Your task to perform on an android device: Open the calendar app, open the side menu, and click the "Day" option Image 0: 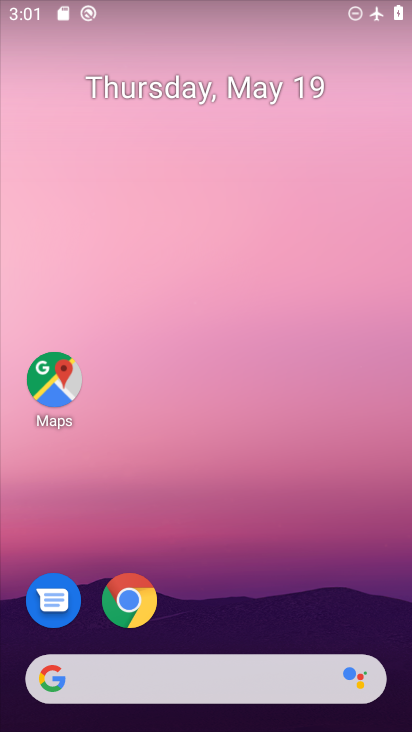
Step 0: drag from (392, 628) to (367, 493)
Your task to perform on an android device: Open the calendar app, open the side menu, and click the "Day" option Image 1: 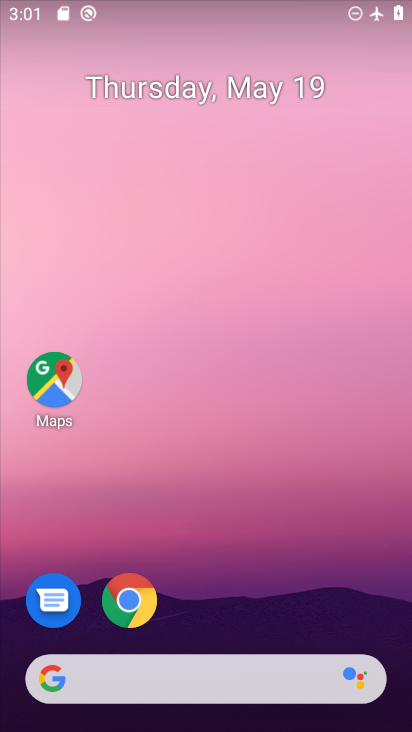
Step 1: drag from (405, 695) to (339, 401)
Your task to perform on an android device: Open the calendar app, open the side menu, and click the "Day" option Image 2: 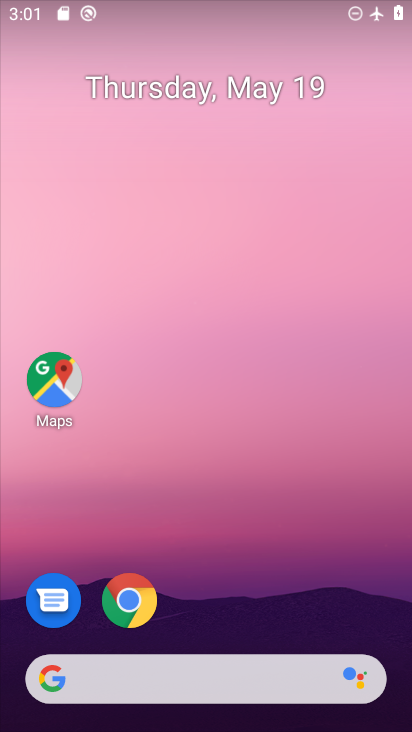
Step 2: drag from (396, 704) to (305, 376)
Your task to perform on an android device: Open the calendar app, open the side menu, and click the "Day" option Image 3: 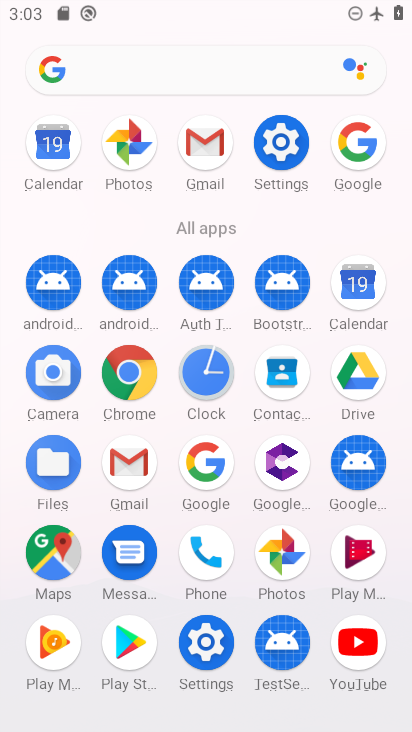
Step 3: click (45, 147)
Your task to perform on an android device: Open the calendar app, open the side menu, and click the "Day" option Image 4: 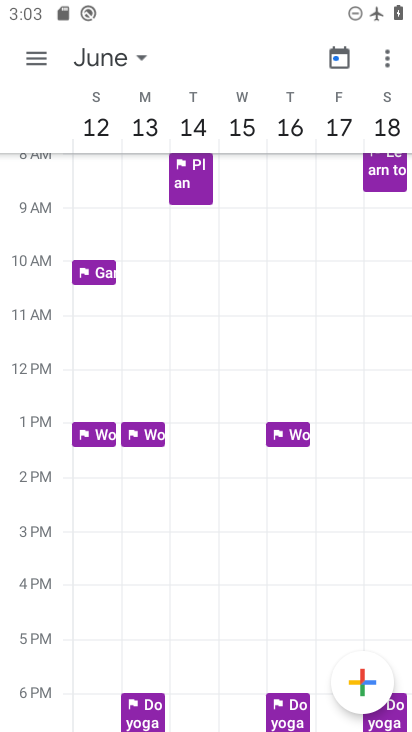
Step 4: click (31, 58)
Your task to perform on an android device: Open the calendar app, open the side menu, and click the "Day" option Image 5: 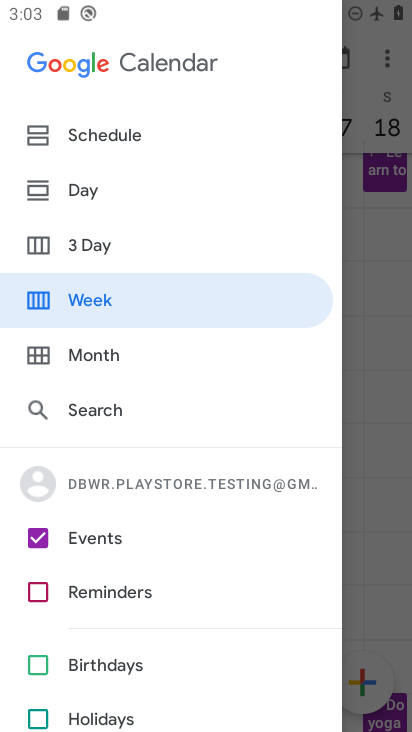
Step 5: click (79, 189)
Your task to perform on an android device: Open the calendar app, open the side menu, and click the "Day" option Image 6: 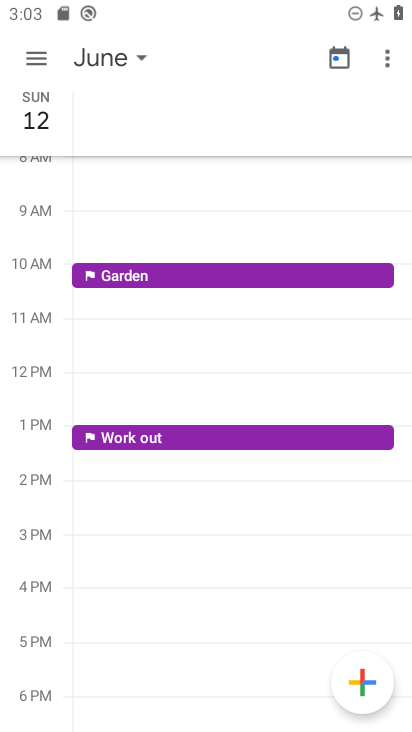
Step 6: task complete